Your task to perform on an android device: Open notification settings Image 0: 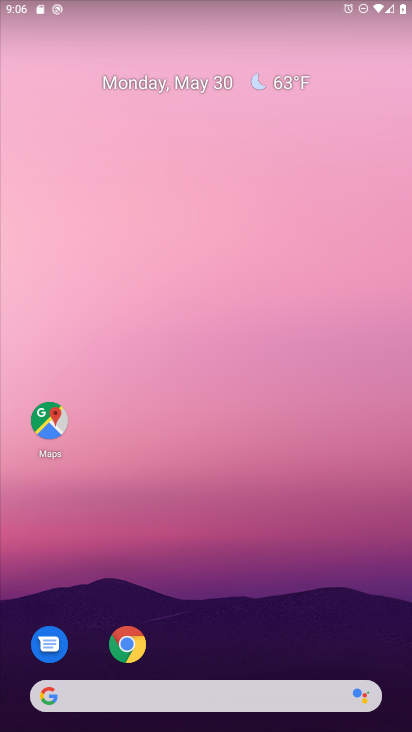
Step 0: drag from (189, 640) to (198, 85)
Your task to perform on an android device: Open notification settings Image 1: 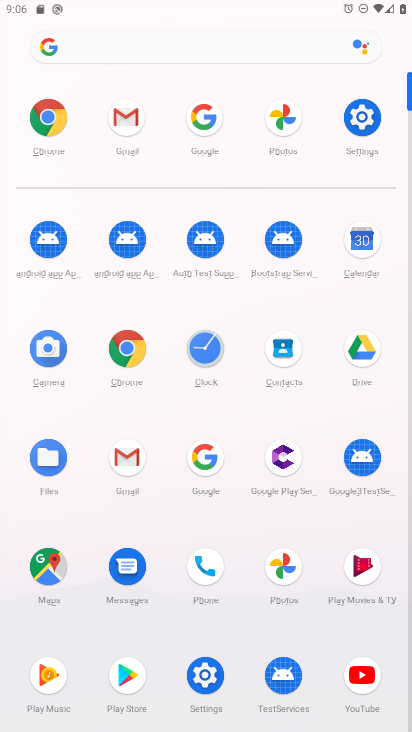
Step 1: click (366, 109)
Your task to perform on an android device: Open notification settings Image 2: 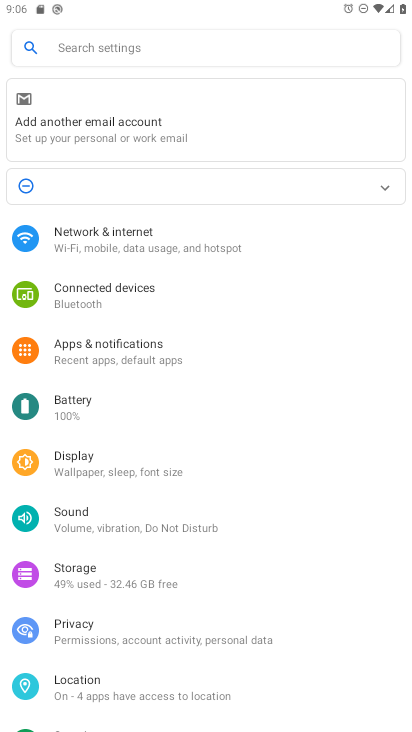
Step 2: click (121, 345)
Your task to perform on an android device: Open notification settings Image 3: 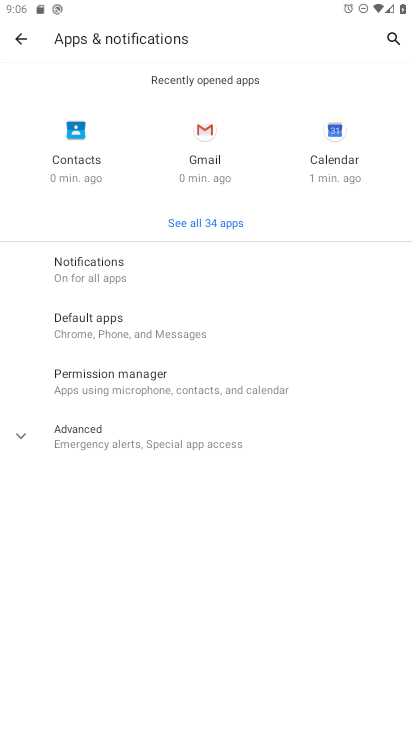
Step 3: click (115, 275)
Your task to perform on an android device: Open notification settings Image 4: 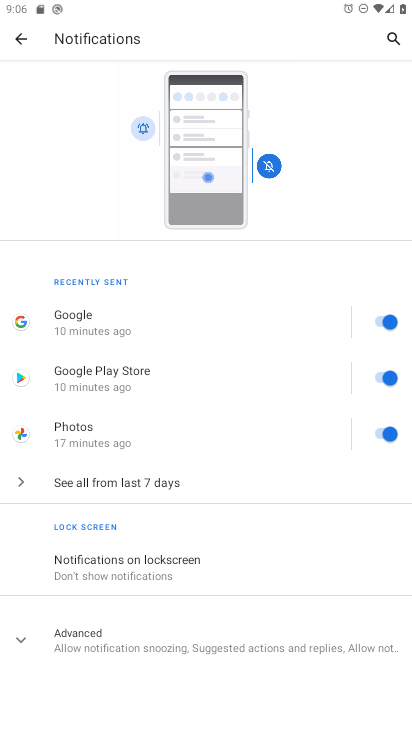
Step 4: task complete